Your task to perform on an android device: check storage Image 0: 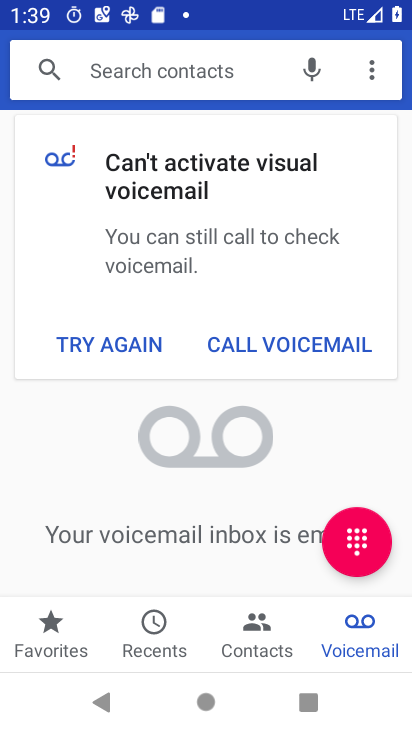
Step 0: press home button
Your task to perform on an android device: check storage Image 1: 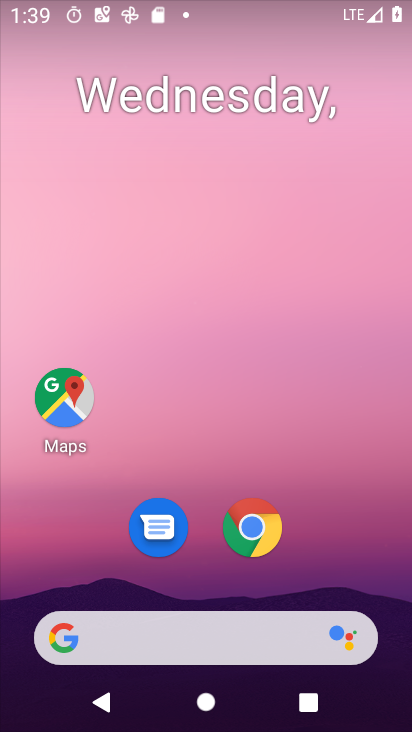
Step 1: drag from (200, 636) to (175, 10)
Your task to perform on an android device: check storage Image 2: 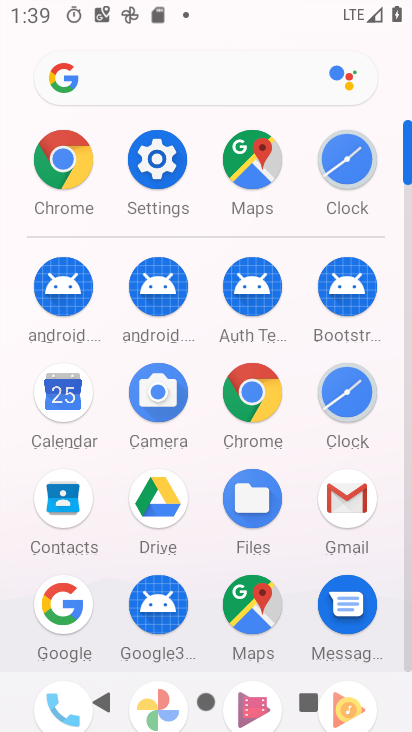
Step 2: click (165, 164)
Your task to perform on an android device: check storage Image 3: 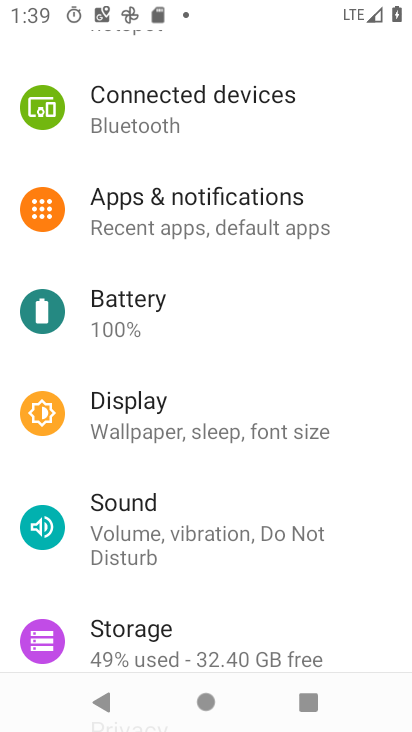
Step 3: click (235, 630)
Your task to perform on an android device: check storage Image 4: 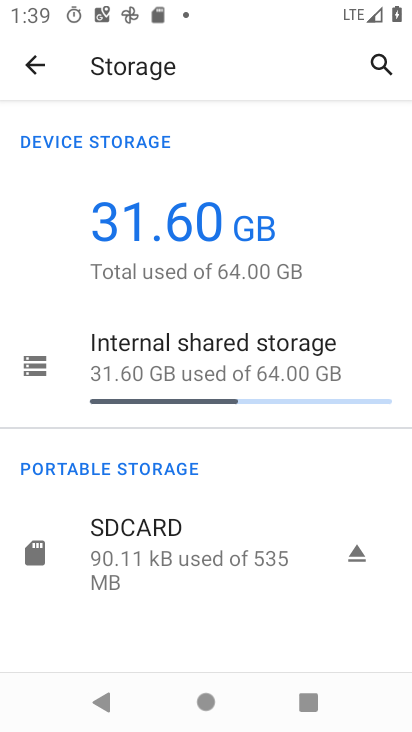
Step 4: task complete